Your task to perform on an android device: Go to Amazon Image 0: 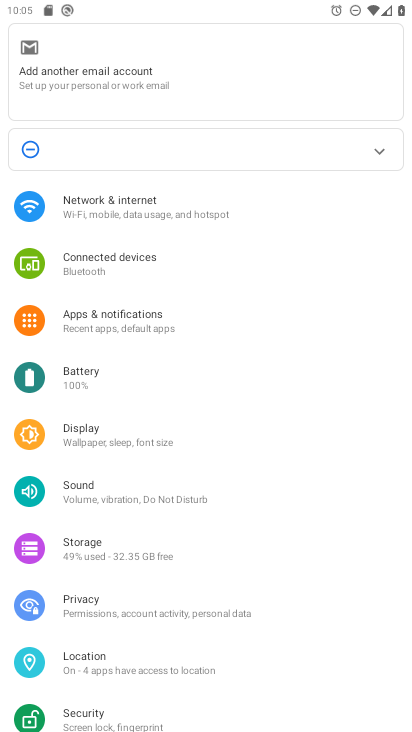
Step 0: press home button
Your task to perform on an android device: Go to Amazon Image 1: 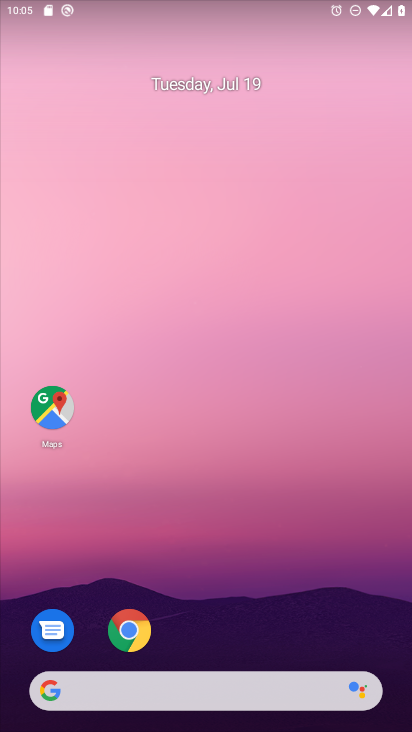
Step 1: drag from (139, 676) to (191, 0)
Your task to perform on an android device: Go to Amazon Image 2: 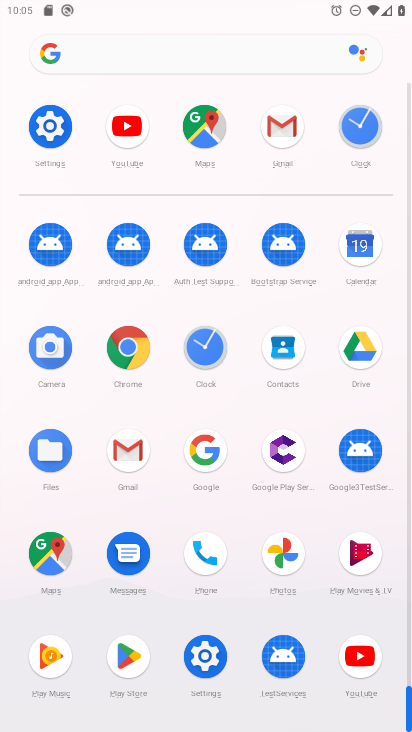
Step 2: click (127, 353)
Your task to perform on an android device: Go to Amazon Image 3: 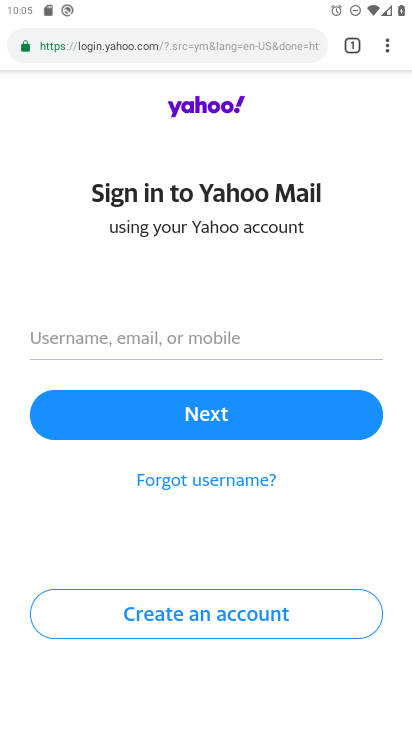
Step 3: drag from (357, 56) to (373, 239)
Your task to perform on an android device: Go to Amazon Image 4: 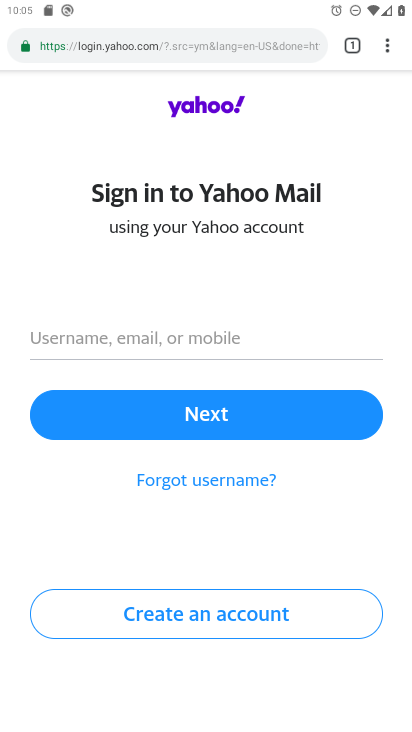
Step 4: drag from (354, 42) to (347, 264)
Your task to perform on an android device: Go to Amazon Image 5: 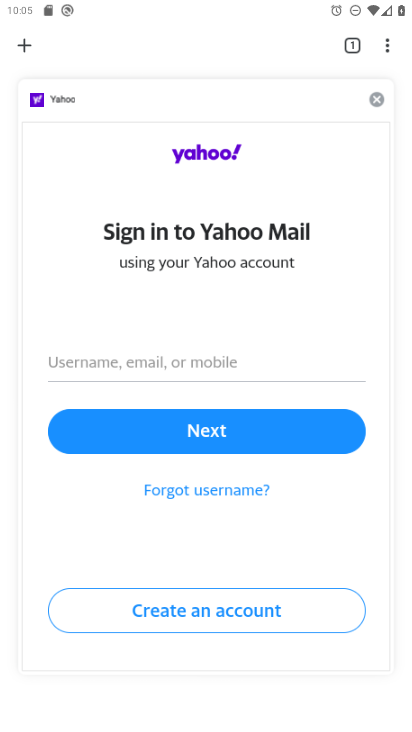
Step 5: click (34, 44)
Your task to perform on an android device: Go to Amazon Image 6: 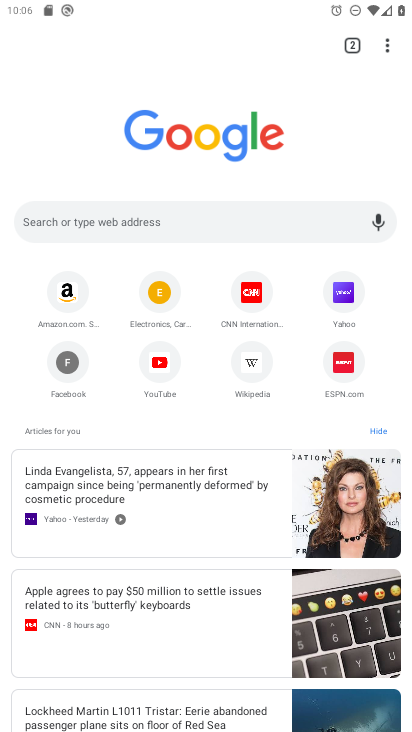
Step 6: click (71, 302)
Your task to perform on an android device: Go to Amazon Image 7: 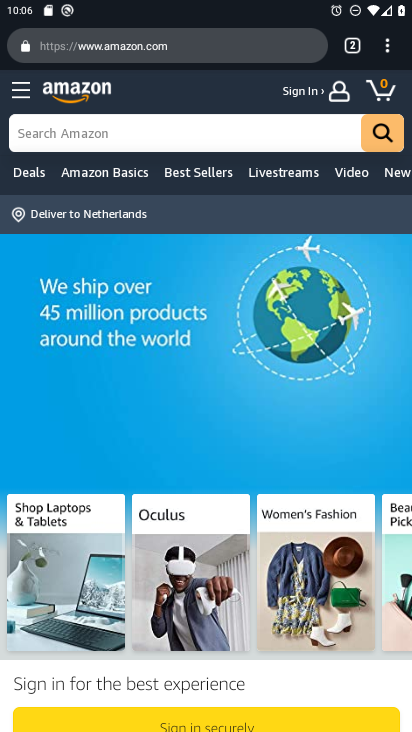
Step 7: task complete